Your task to perform on an android device: open chrome privacy settings Image 0: 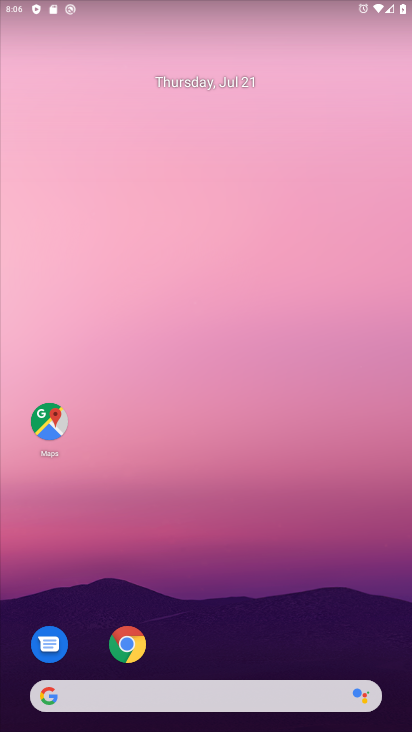
Step 0: drag from (362, 602) to (393, 112)
Your task to perform on an android device: open chrome privacy settings Image 1: 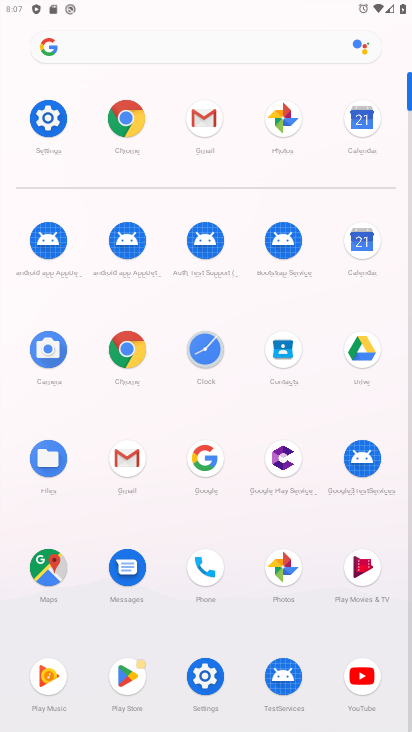
Step 1: click (134, 346)
Your task to perform on an android device: open chrome privacy settings Image 2: 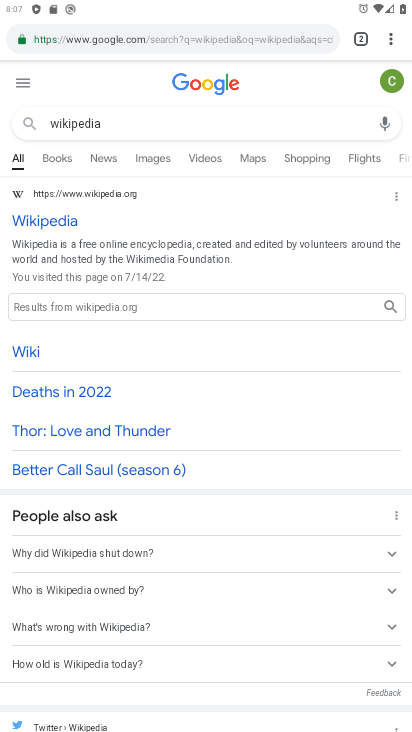
Step 2: click (395, 37)
Your task to perform on an android device: open chrome privacy settings Image 3: 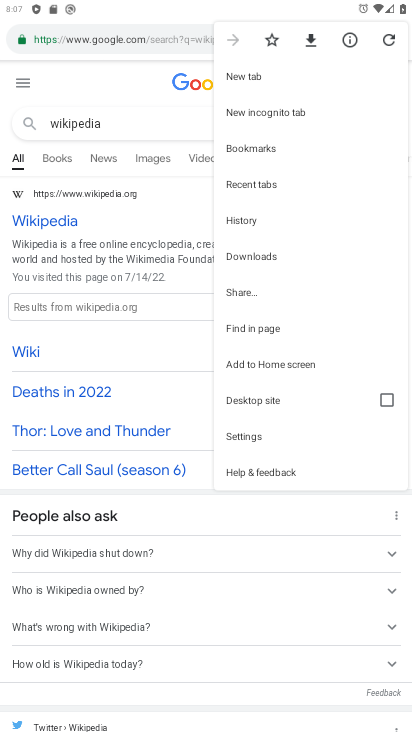
Step 3: click (257, 438)
Your task to perform on an android device: open chrome privacy settings Image 4: 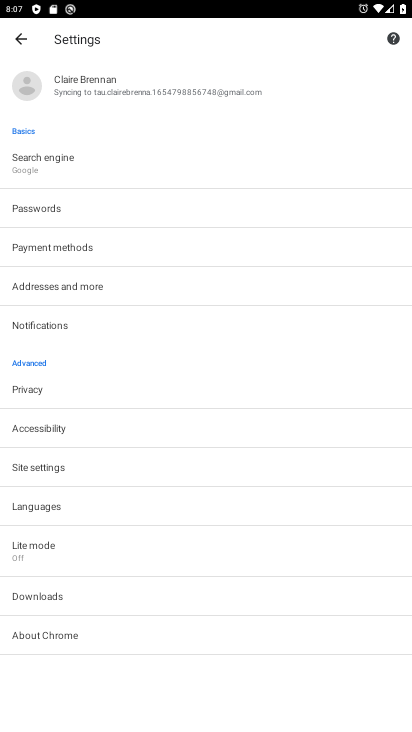
Step 4: drag from (289, 517) to (318, 421)
Your task to perform on an android device: open chrome privacy settings Image 5: 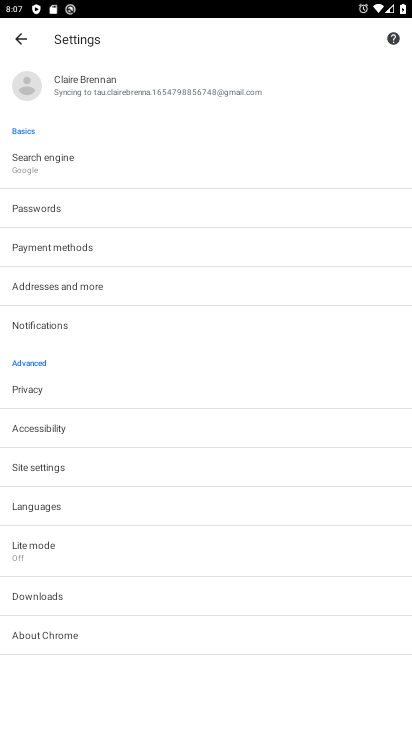
Step 5: click (128, 391)
Your task to perform on an android device: open chrome privacy settings Image 6: 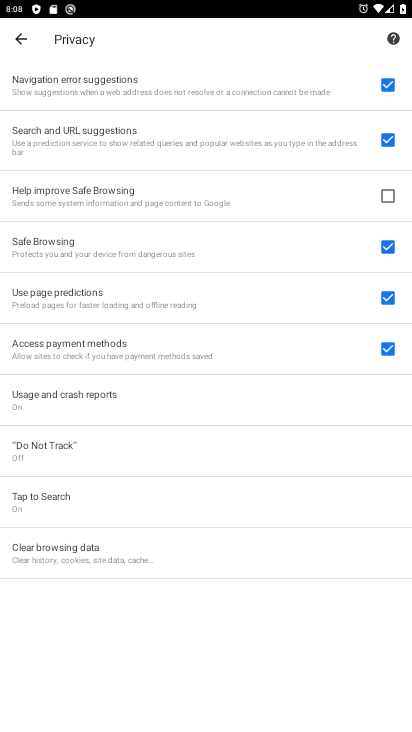
Step 6: task complete